Your task to perform on an android device: turn on wifi Image 0: 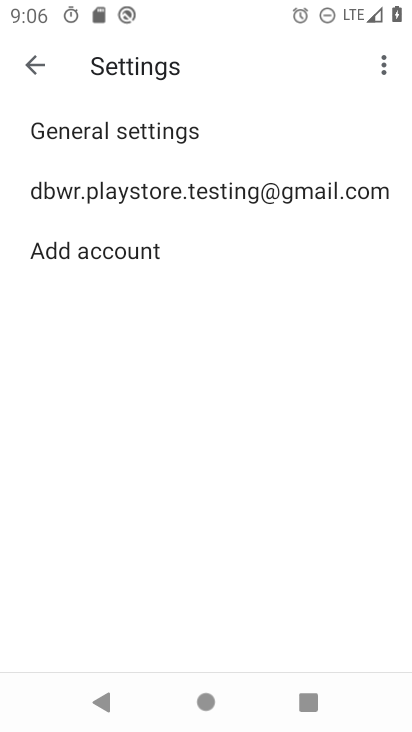
Step 0: press home button
Your task to perform on an android device: turn on wifi Image 1: 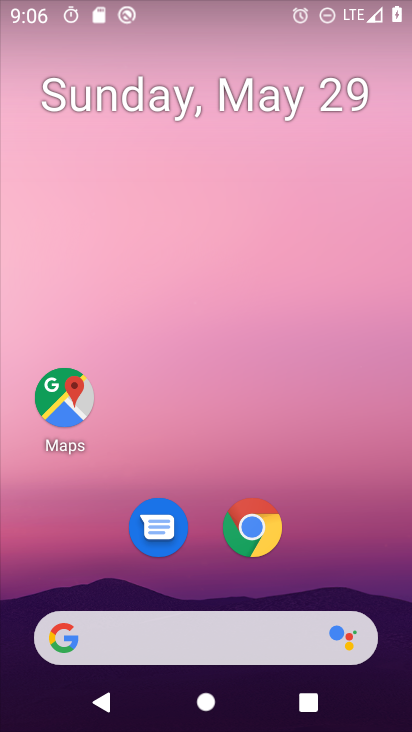
Step 1: drag from (406, 634) to (268, 37)
Your task to perform on an android device: turn on wifi Image 2: 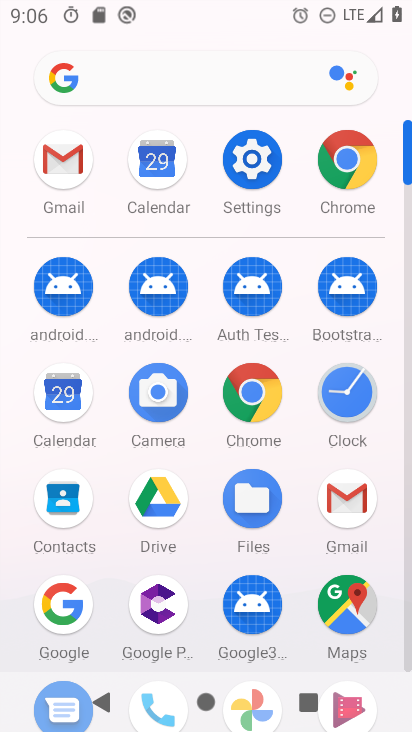
Step 2: drag from (196, 8) to (287, 539)
Your task to perform on an android device: turn on wifi Image 3: 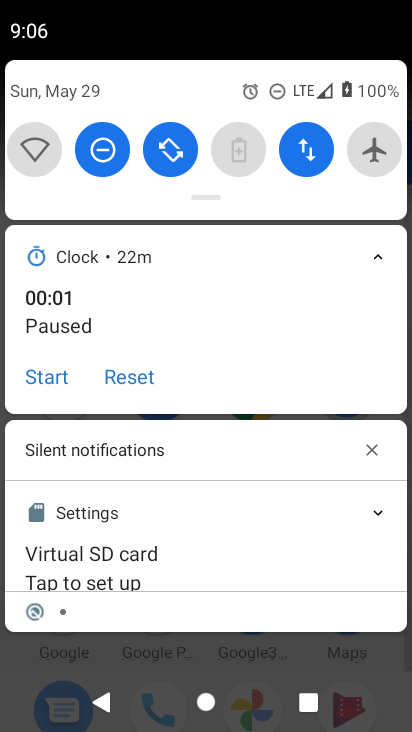
Step 3: click (47, 146)
Your task to perform on an android device: turn on wifi Image 4: 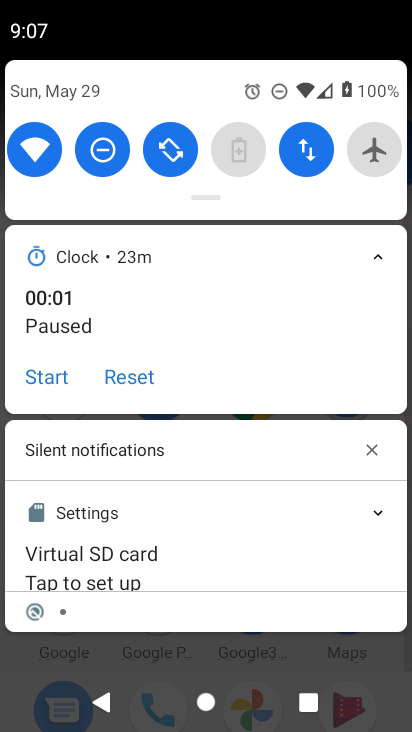
Step 4: task complete